Your task to perform on an android device: open device folders in google photos Image 0: 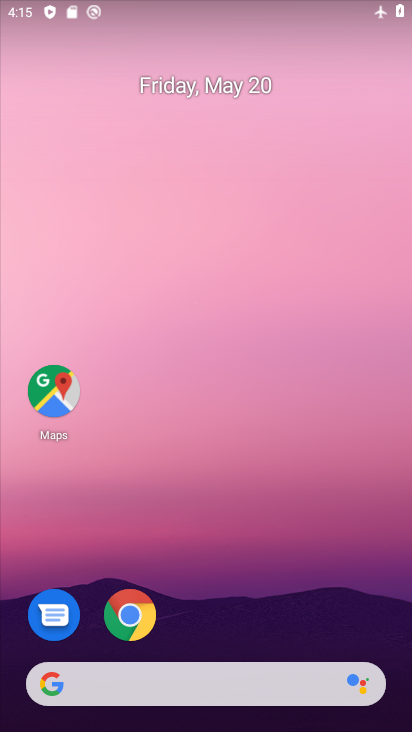
Step 0: drag from (197, 650) to (211, 136)
Your task to perform on an android device: open device folders in google photos Image 1: 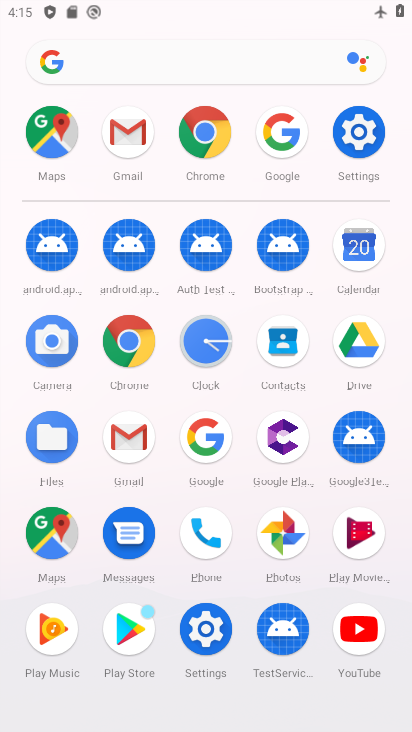
Step 1: click (288, 558)
Your task to perform on an android device: open device folders in google photos Image 2: 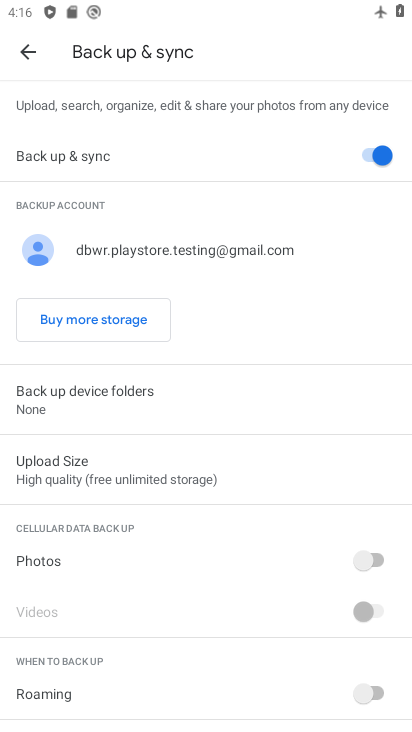
Step 2: click (32, 41)
Your task to perform on an android device: open device folders in google photos Image 3: 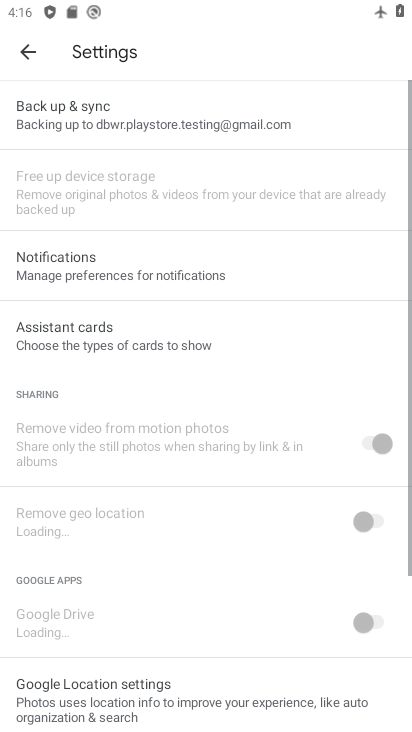
Step 3: click (31, 51)
Your task to perform on an android device: open device folders in google photos Image 4: 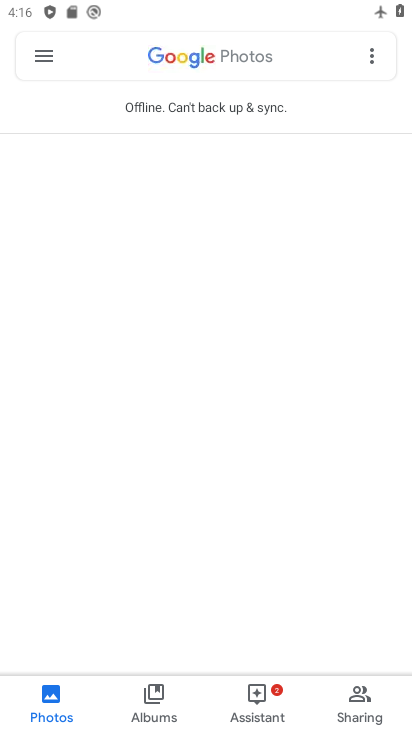
Step 4: click (45, 67)
Your task to perform on an android device: open device folders in google photos Image 5: 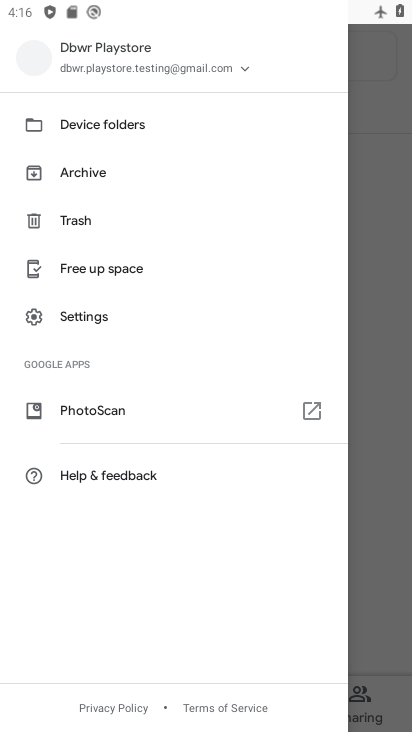
Step 5: click (96, 132)
Your task to perform on an android device: open device folders in google photos Image 6: 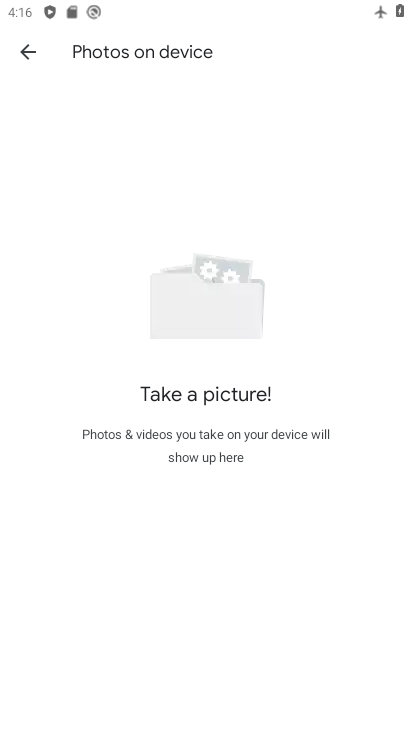
Step 6: task complete